Your task to perform on an android device: show emergency info Image 0: 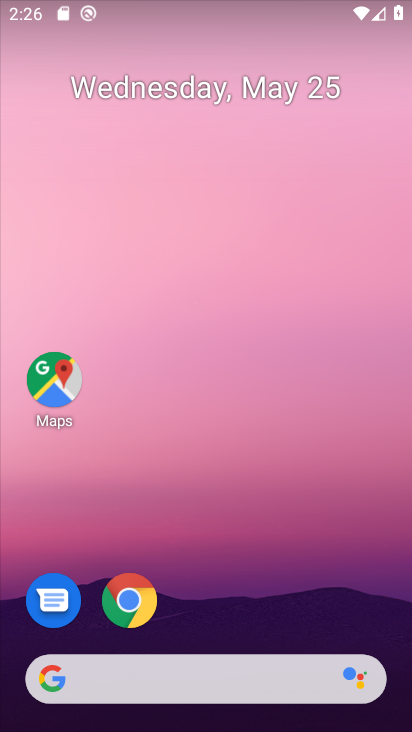
Step 0: drag from (195, 646) to (264, 196)
Your task to perform on an android device: show emergency info Image 1: 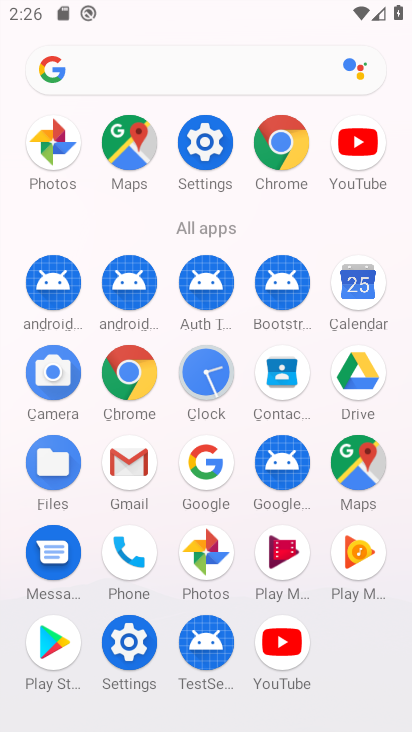
Step 1: drag from (187, 631) to (227, 436)
Your task to perform on an android device: show emergency info Image 2: 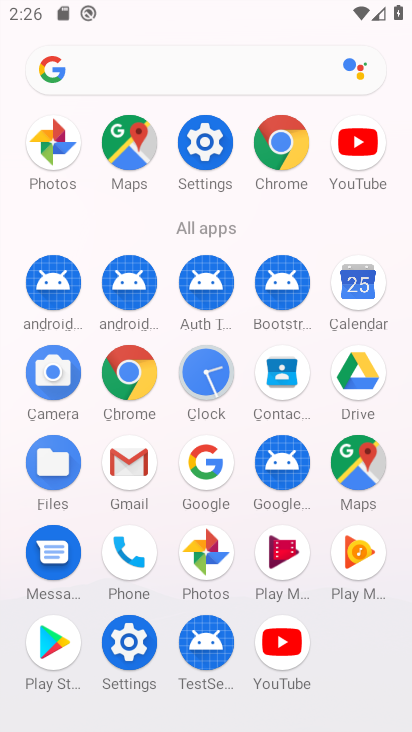
Step 2: click (145, 656)
Your task to perform on an android device: show emergency info Image 3: 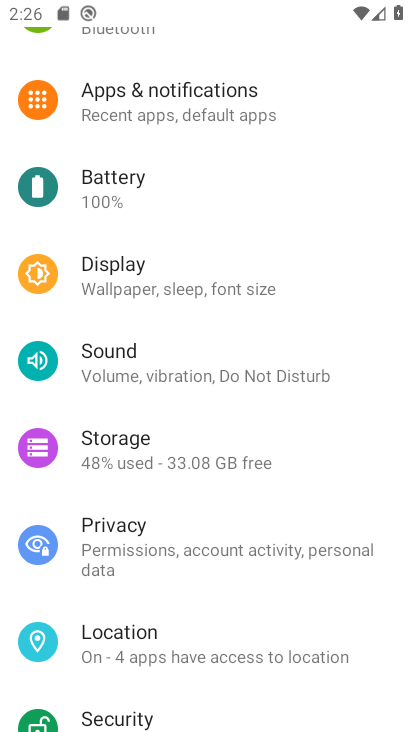
Step 3: drag from (121, 678) to (271, 155)
Your task to perform on an android device: show emergency info Image 4: 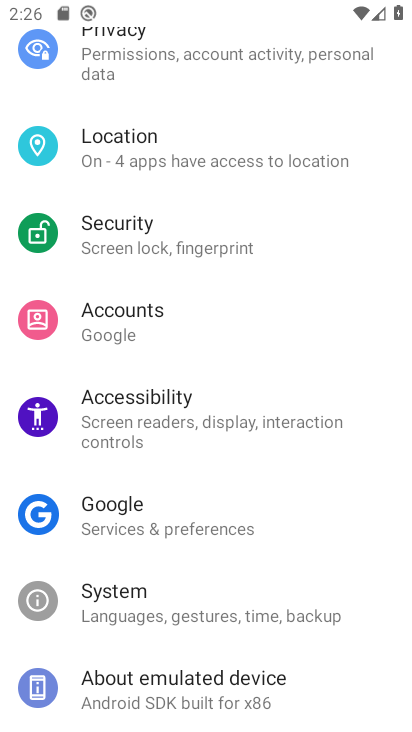
Step 4: drag from (188, 679) to (275, 313)
Your task to perform on an android device: show emergency info Image 5: 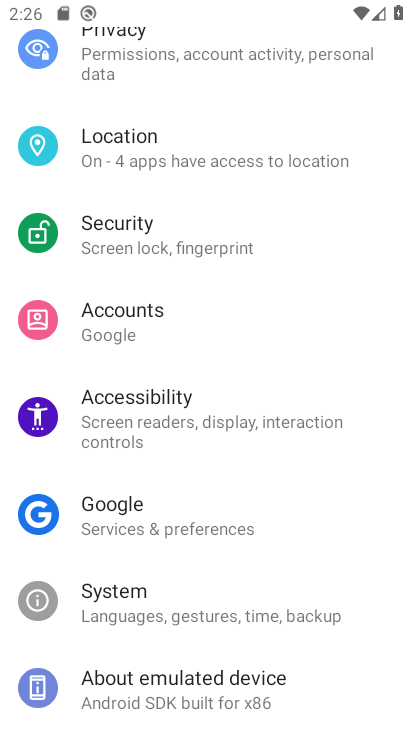
Step 5: click (200, 695)
Your task to perform on an android device: show emergency info Image 6: 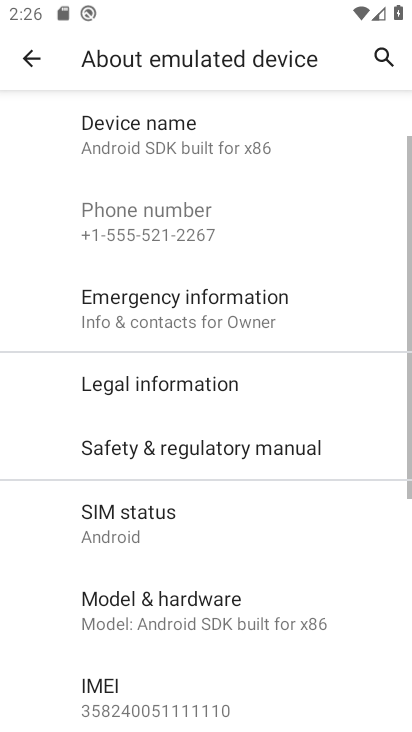
Step 6: click (274, 319)
Your task to perform on an android device: show emergency info Image 7: 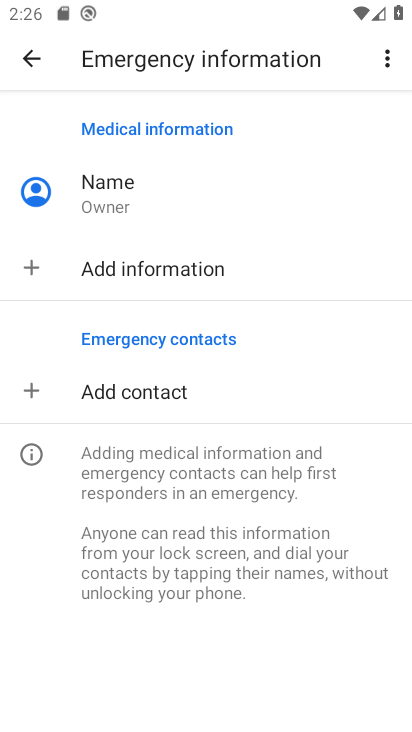
Step 7: task complete